Your task to perform on an android device: Open eBay Image 0: 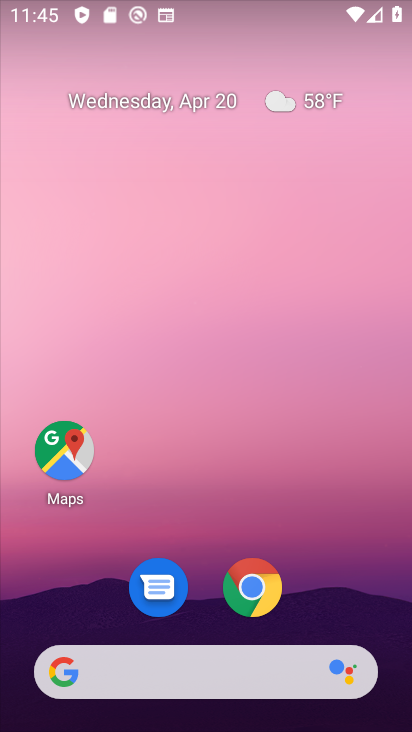
Step 0: click (253, 580)
Your task to perform on an android device: Open eBay Image 1: 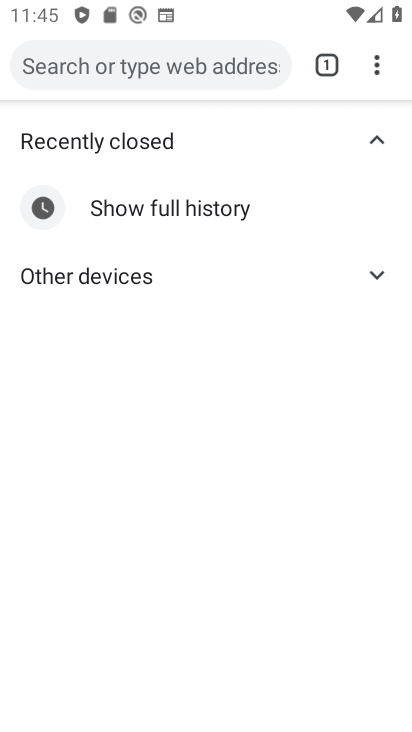
Step 1: click (202, 55)
Your task to perform on an android device: Open eBay Image 2: 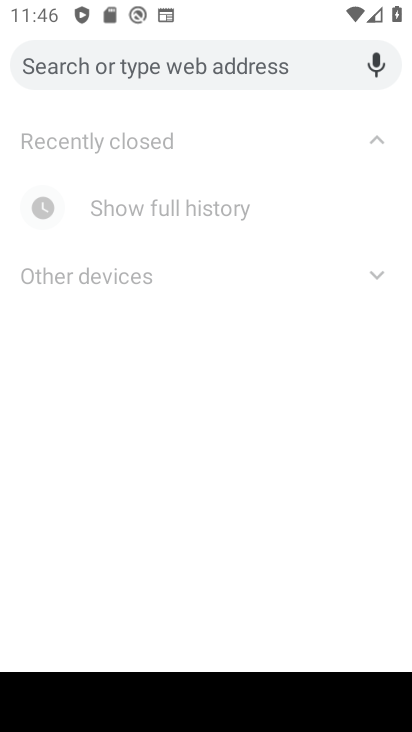
Step 2: type "ebay"
Your task to perform on an android device: Open eBay Image 3: 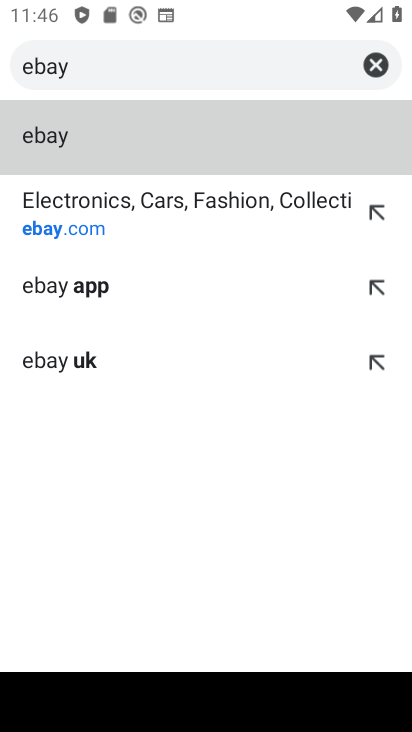
Step 3: click (148, 207)
Your task to perform on an android device: Open eBay Image 4: 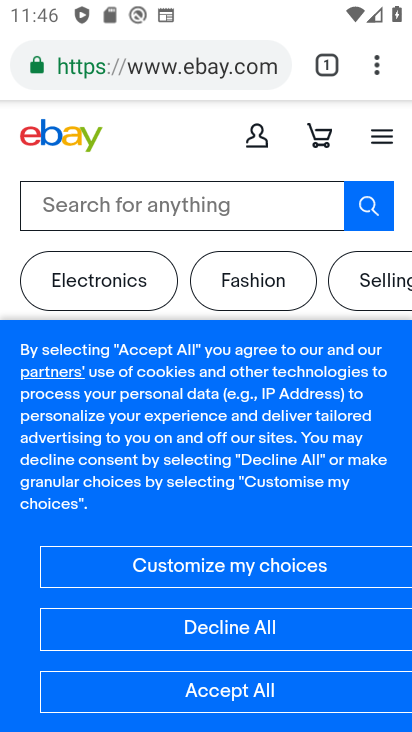
Step 4: task complete